Your task to perform on an android device: change keyboard looks Image 0: 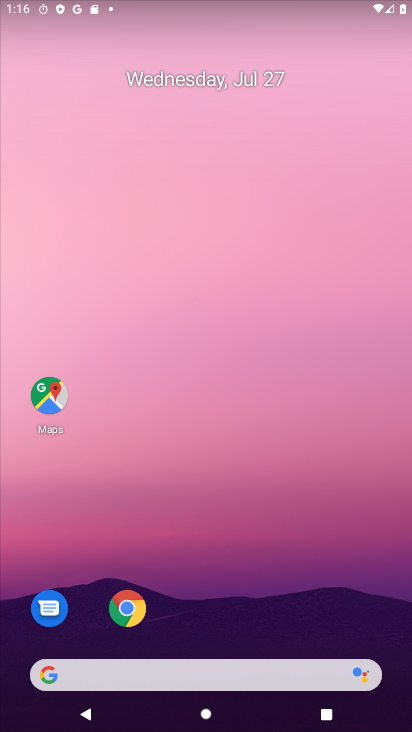
Step 0: drag from (181, 533) to (218, 104)
Your task to perform on an android device: change keyboard looks Image 1: 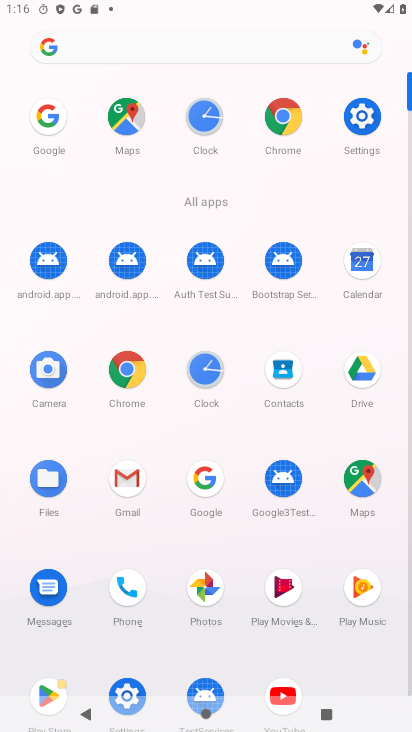
Step 1: click (361, 121)
Your task to perform on an android device: change keyboard looks Image 2: 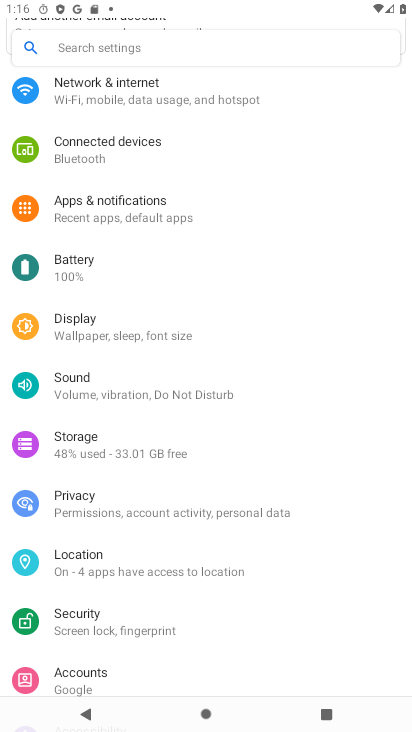
Step 2: drag from (108, 656) to (161, 248)
Your task to perform on an android device: change keyboard looks Image 3: 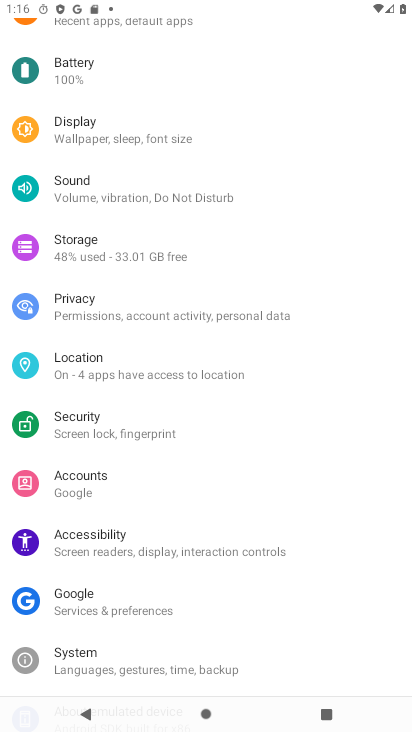
Step 3: drag from (102, 600) to (113, 429)
Your task to perform on an android device: change keyboard looks Image 4: 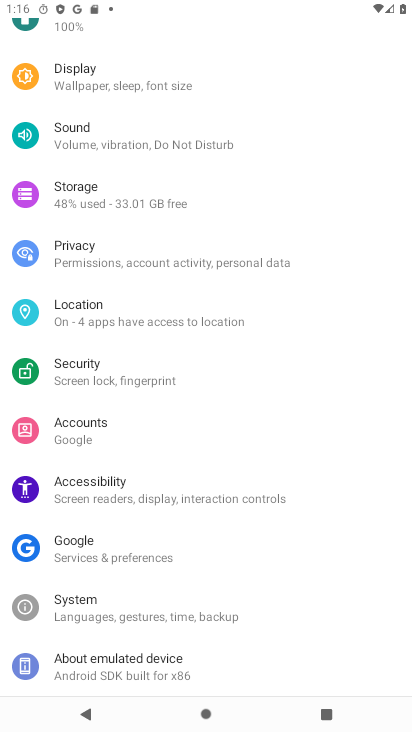
Step 4: click (75, 605)
Your task to perform on an android device: change keyboard looks Image 5: 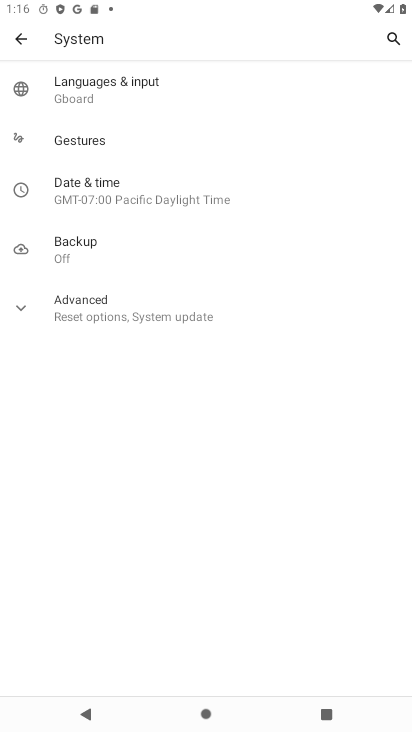
Step 5: click (91, 99)
Your task to perform on an android device: change keyboard looks Image 6: 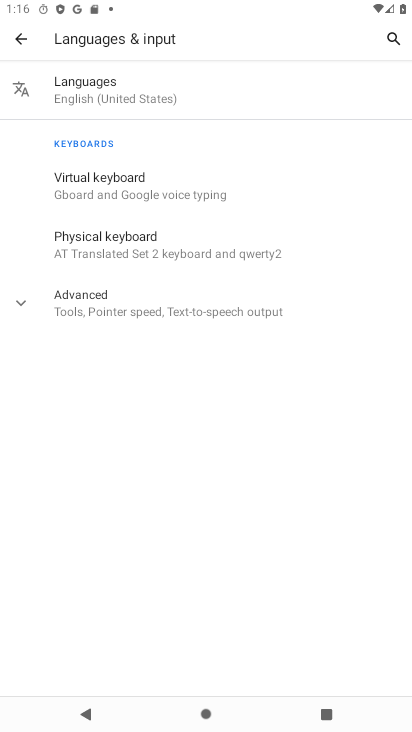
Step 6: click (91, 183)
Your task to perform on an android device: change keyboard looks Image 7: 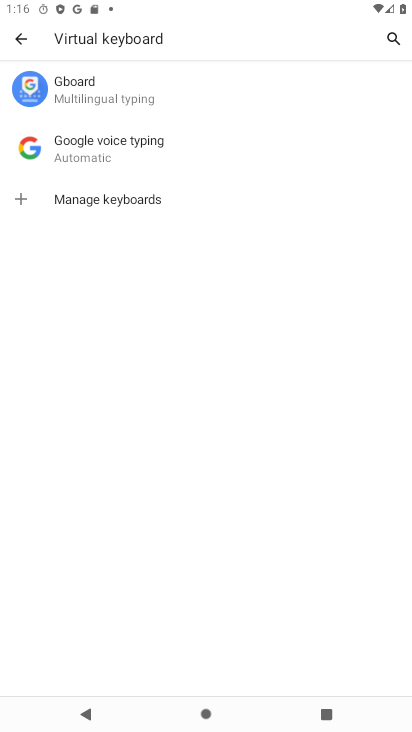
Step 7: click (96, 93)
Your task to perform on an android device: change keyboard looks Image 8: 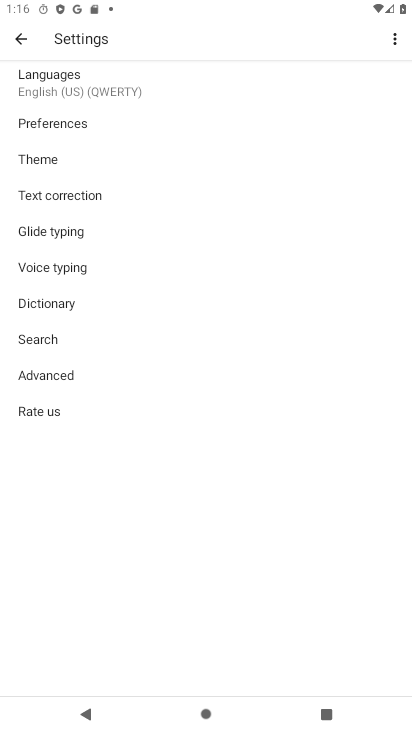
Step 8: click (43, 158)
Your task to perform on an android device: change keyboard looks Image 9: 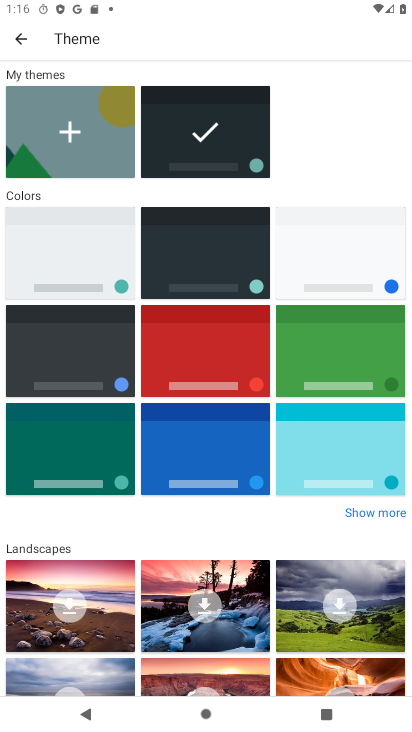
Step 9: click (199, 160)
Your task to perform on an android device: change keyboard looks Image 10: 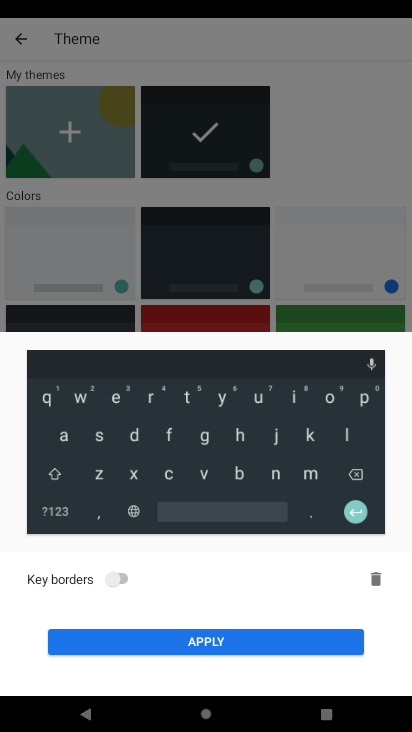
Step 10: click (228, 635)
Your task to perform on an android device: change keyboard looks Image 11: 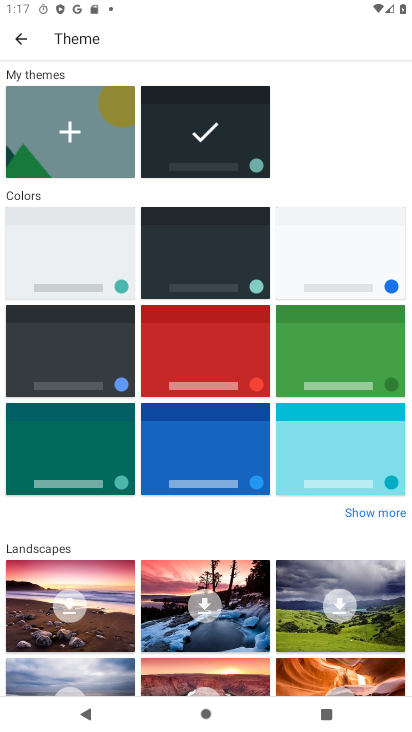
Step 11: task complete